Your task to perform on an android device: Search for sushi restaurants on Maps Image 0: 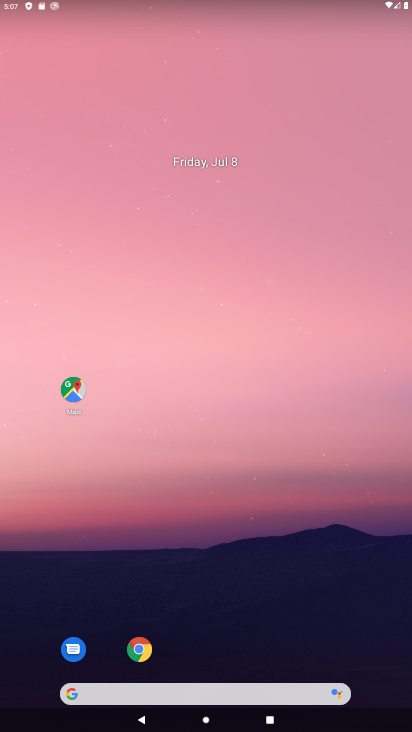
Step 0: click (69, 390)
Your task to perform on an android device: Search for sushi restaurants on Maps Image 1: 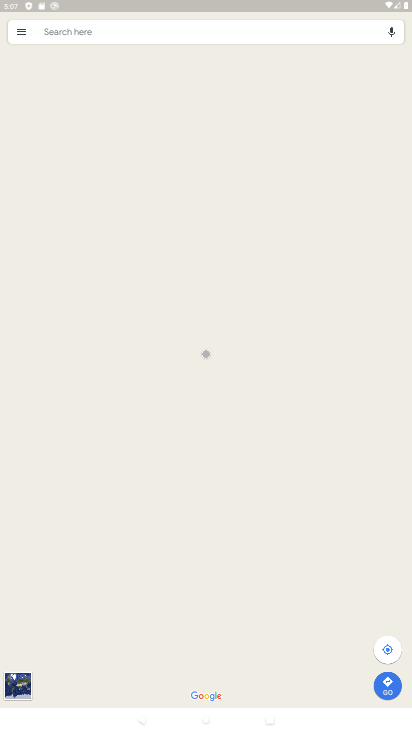
Step 1: click (153, 21)
Your task to perform on an android device: Search for sushi restaurants on Maps Image 2: 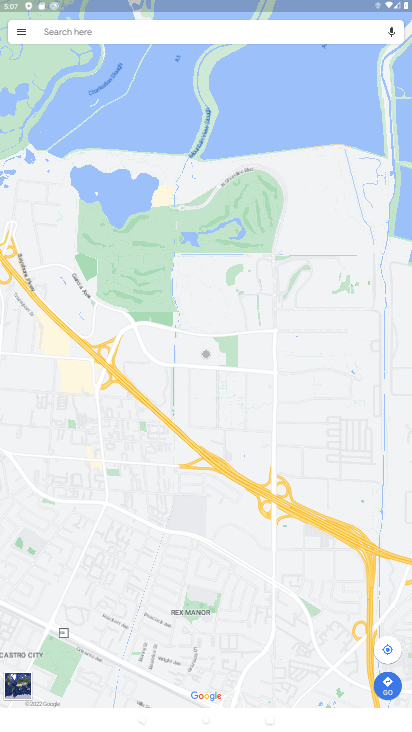
Step 2: click (236, 36)
Your task to perform on an android device: Search for sushi restaurants on Maps Image 3: 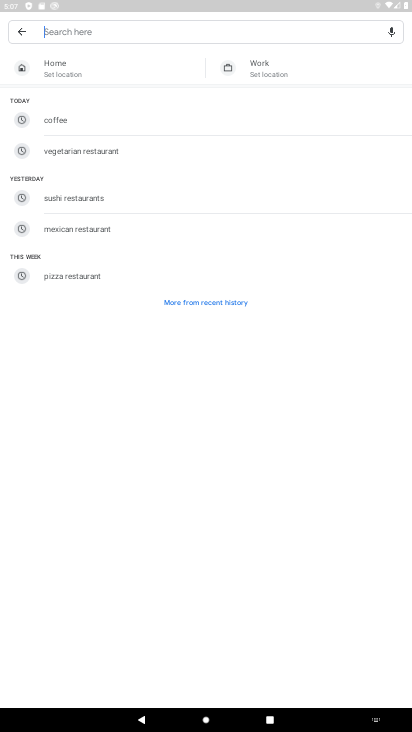
Step 3: click (93, 197)
Your task to perform on an android device: Search for sushi restaurants on Maps Image 4: 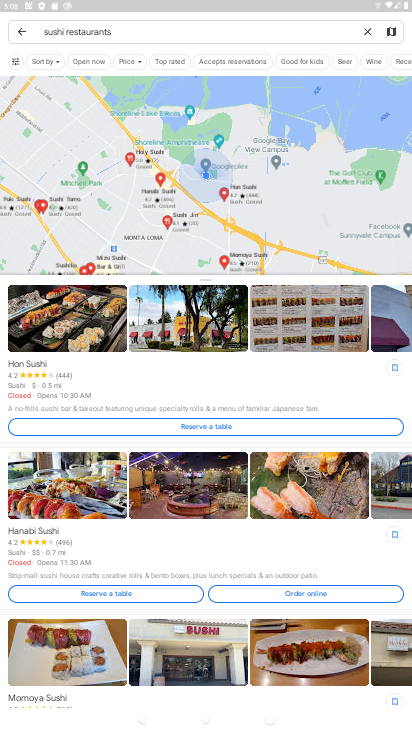
Step 4: task complete